Your task to perform on an android device: turn off javascript in the chrome app Image 0: 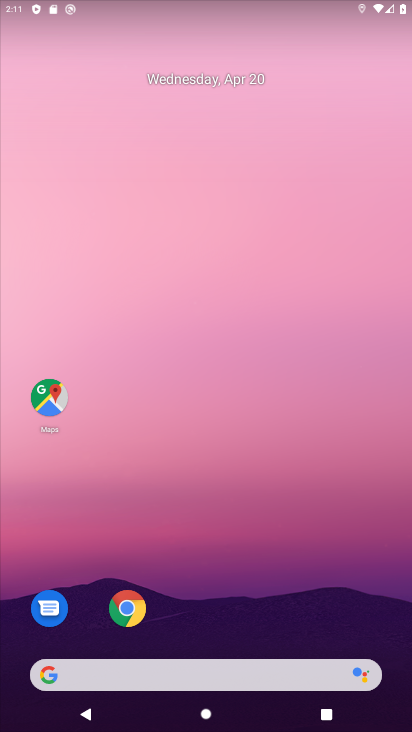
Step 0: drag from (346, 493) to (337, 288)
Your task to perform on an android device: turn off javascript in the chrome app Image 1: 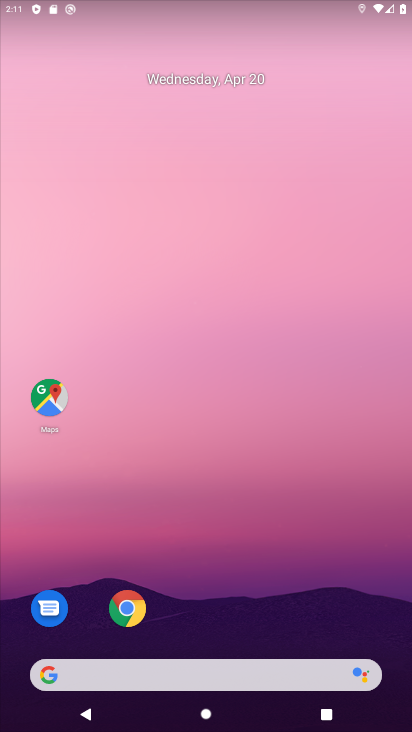
Step 1: drag from (382, 612) to (386, 195)
Your task to perform on an android device: turn off javascript in the chrome app Image 2: 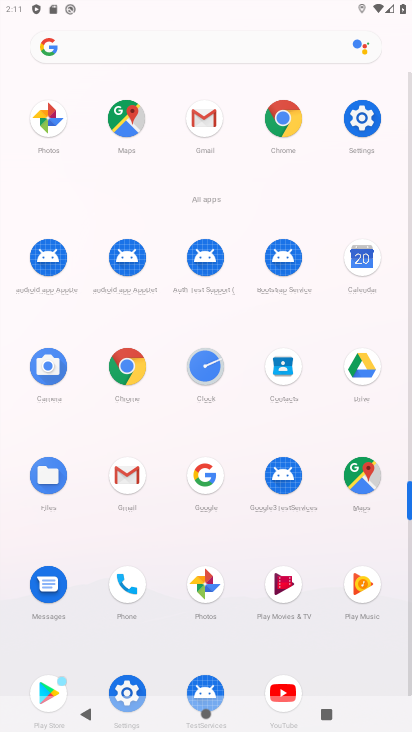
Step 2: click (135, 367)
Your task to perform on an android device: turn off javascript in the chrome app Image 3: 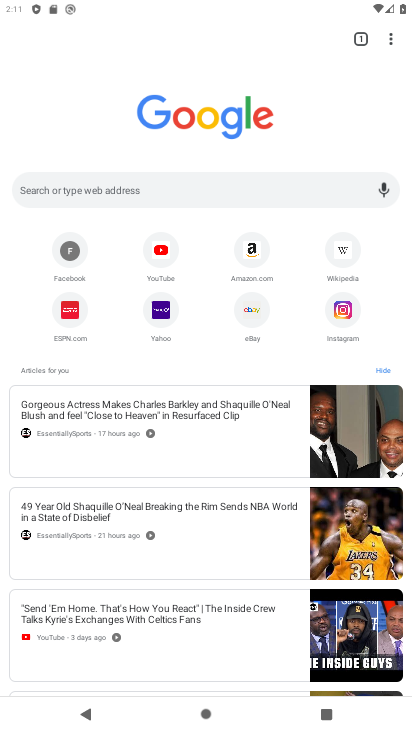
Step 3: click (392, 42)
Your task to perform on an android device: turn off javascript in the chrome app Image 4: 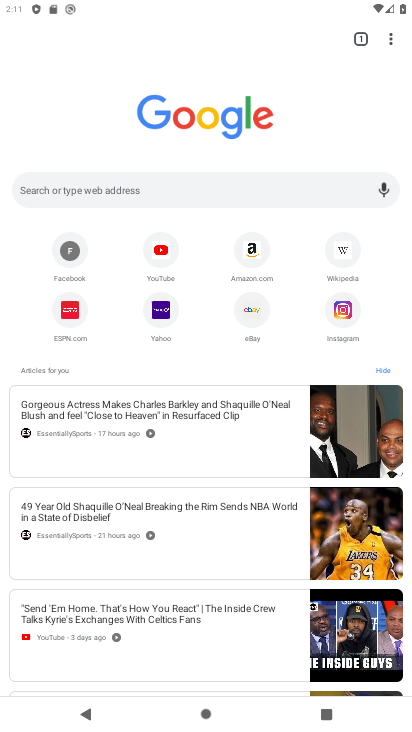
Step 4: drag from (395, 45) to (273, 372)
Your task to perform on an android device: turn off javascript in the chrome app Image 5: 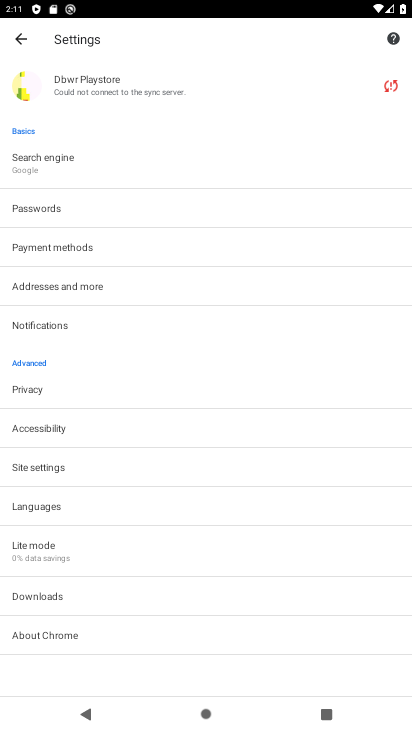
Step 5: click (76, 461)
Your task to perform on an android device: turn off javascript in the chrome app Image 6: 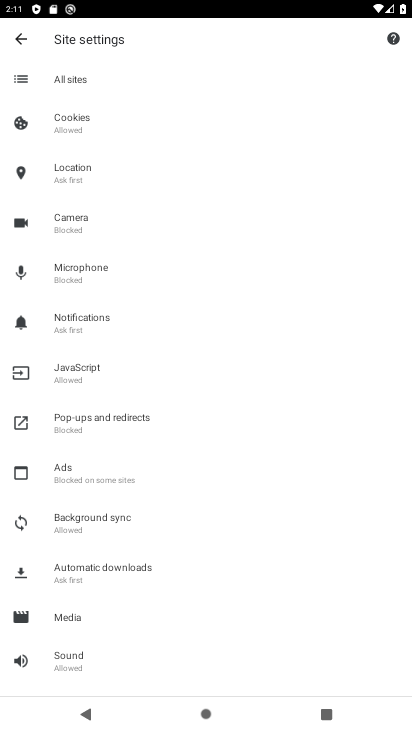
Step 6: click (126, 375)
Your task to perform on an android device: turn off javascript in the chrome app Image 7: 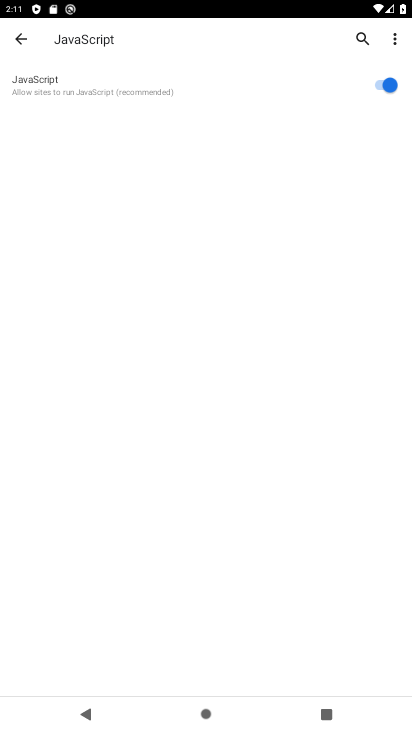
Step 7: click (390, 86)
Your task to perform on an android device: turn off javascript in the chrome app Image 8: 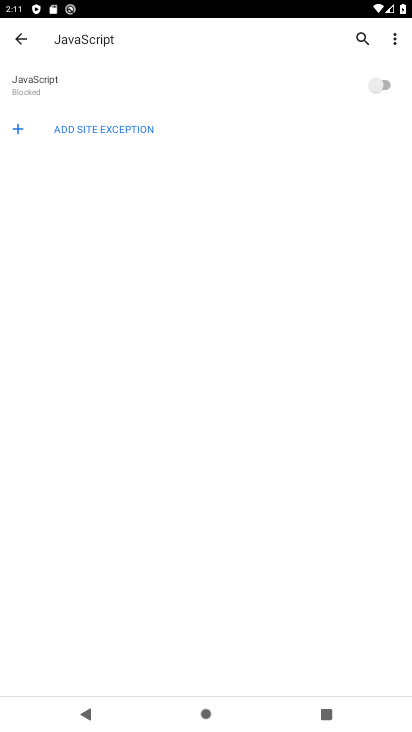
Step 8: task complete